Your task to perform on an android device: turn off location Image 0: 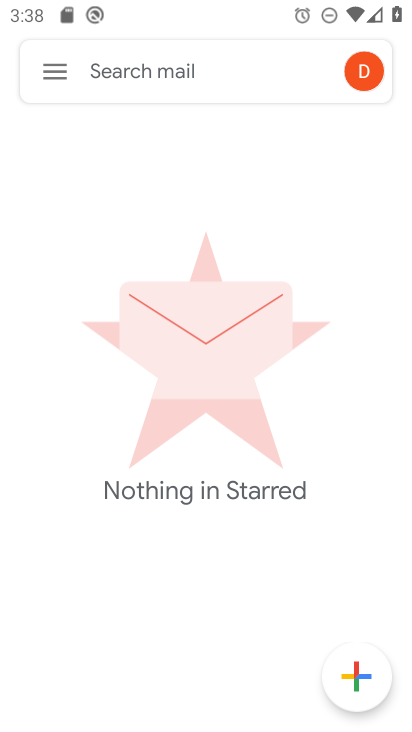
Step 0: press back button
Your task to perform on an android device: turn off location Image 1: 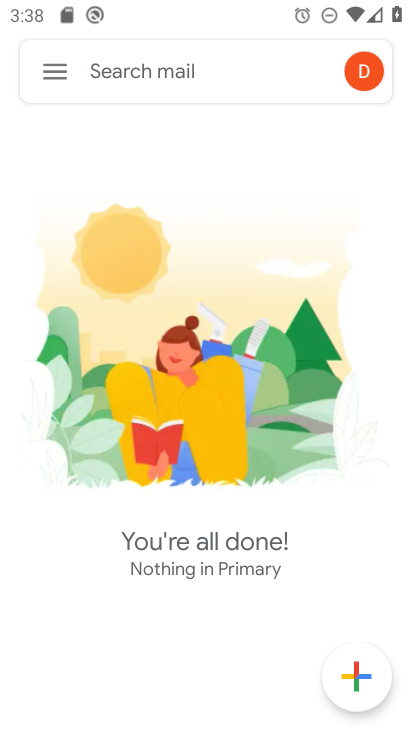
Step 1: press back button
Your task to perform on an android device: turn off location Image 2: 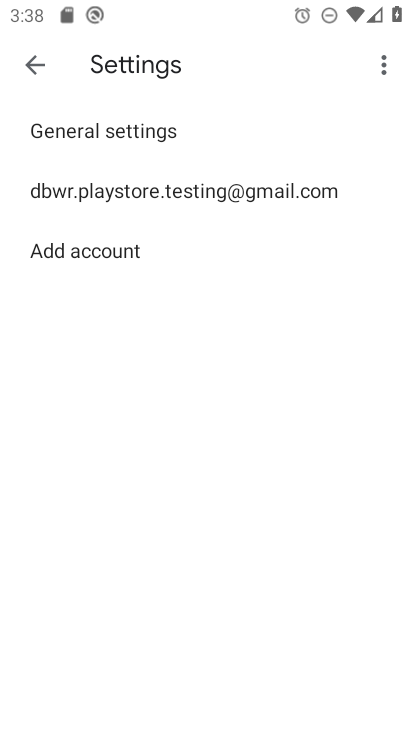
Step 2: press home button
Your task to perform on an android device: turn off location Image 3: 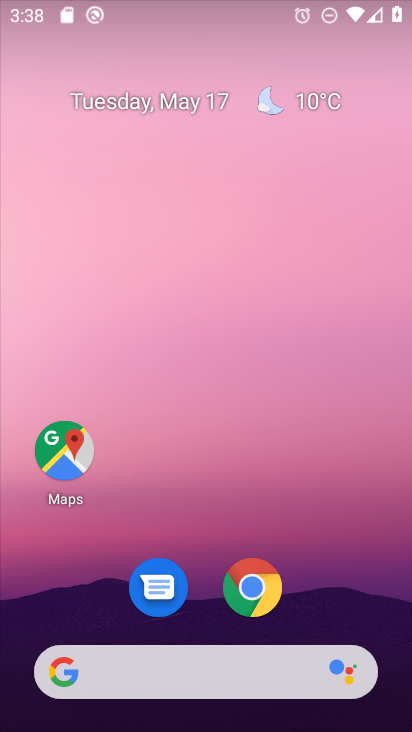
Step 3: drag from (313, 543) to (273, 12)
Your task to perform on an android device: turn off location Image 4: 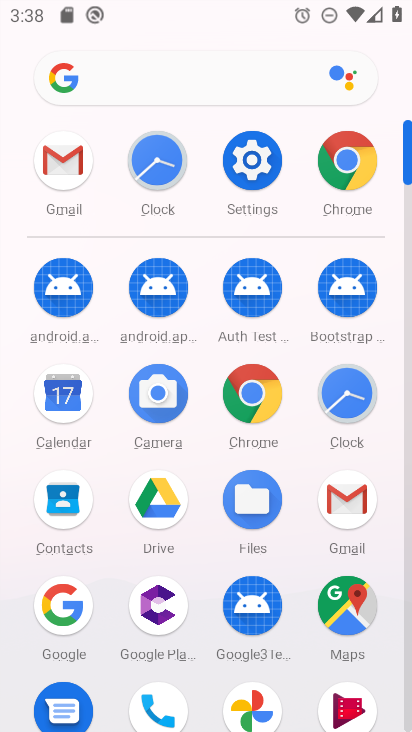
Step 4: click (251, 155)
Your task to perform on an android device: turn off location Image 5: 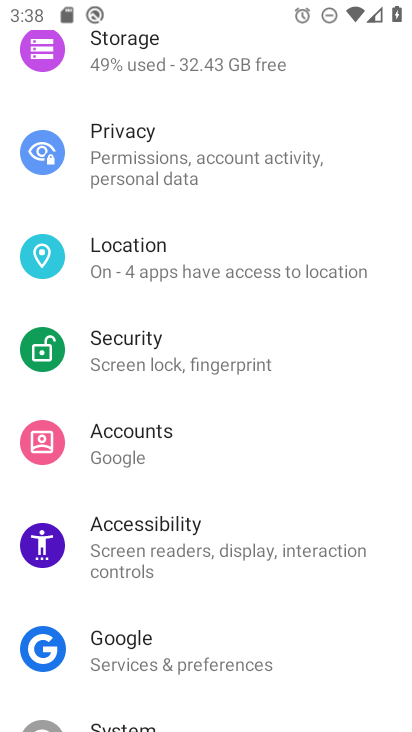
Step 5: click (205, 265)
Your task to perform on an android device: turn off location Image 6: 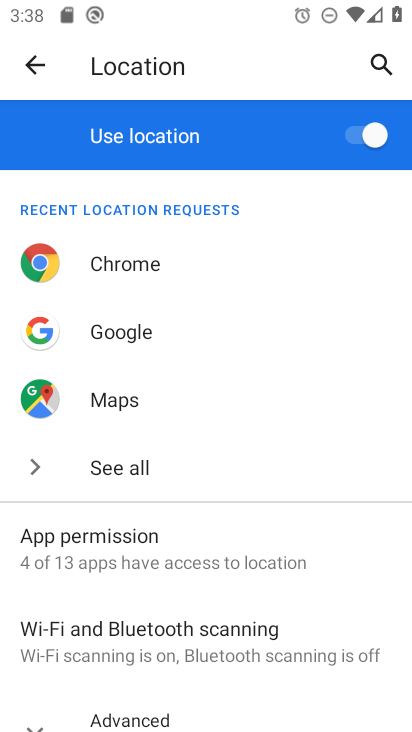
Step 6: click (368, 128)
Your task to perform on an android device: turn off location Image 7: 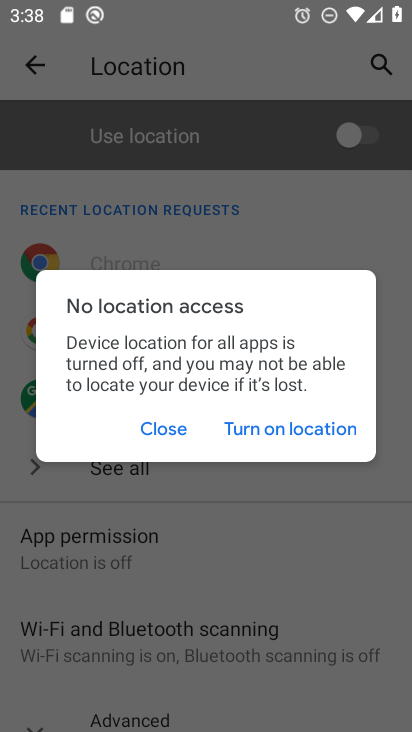
Step 7: click (159, 425)
Your task to perform on an android device: turn off location Image 8: 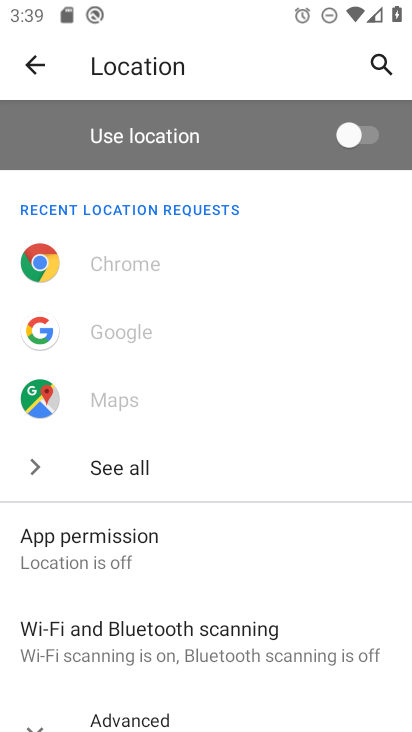
Step 8: task complete